Your task to perform on an android device: remove spam from my inbox in the gmail app Image 0: 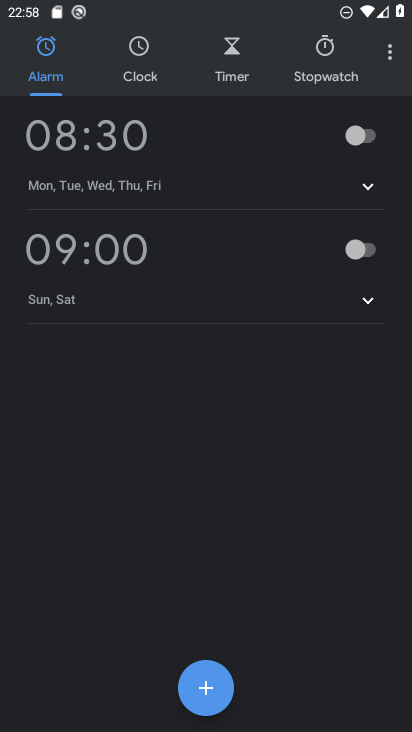
Step 0: press home button
Your task to perform on an android device: remove spam from my inbox in the gmail app Image 1: 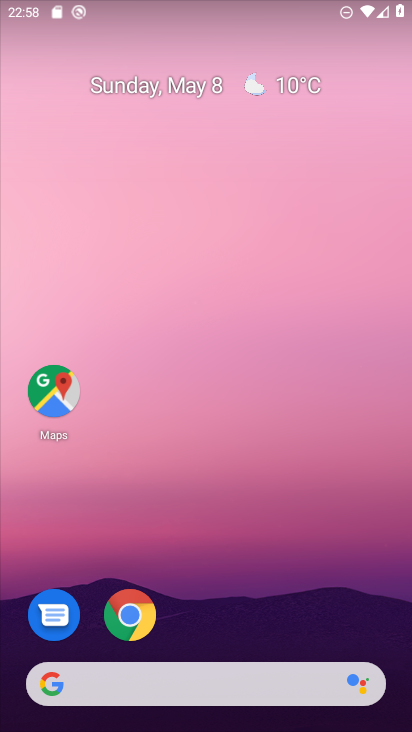
Step 1: drag from (298, 605) to (329, 190)
Your task to perform on an android device: remove spam from my inbox in the gmail app Image 2: 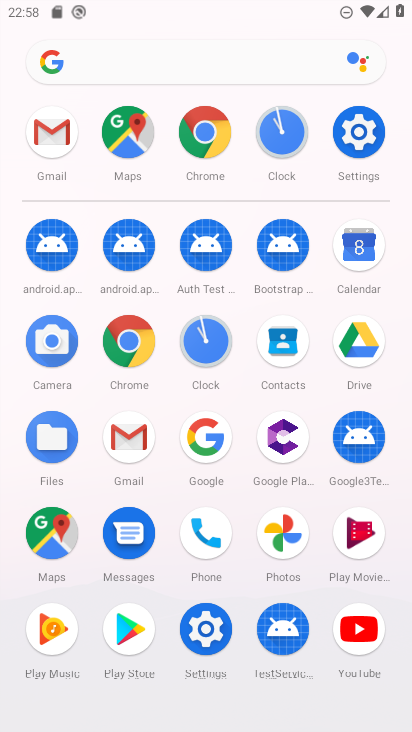
Step 2: click (132, 444)
Your task to perform on an android device: remove spam from my inbox in the gmail app Image 3: 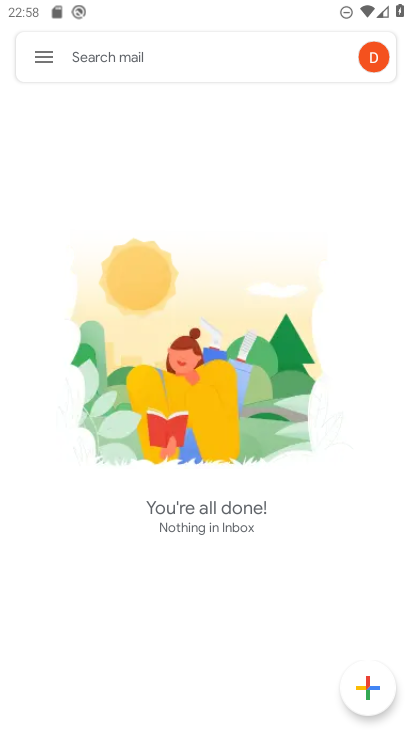
Step 3: click (40, 52)
Your task to perform on an android device: remove spam from my inbox in the gmail app Image 4: 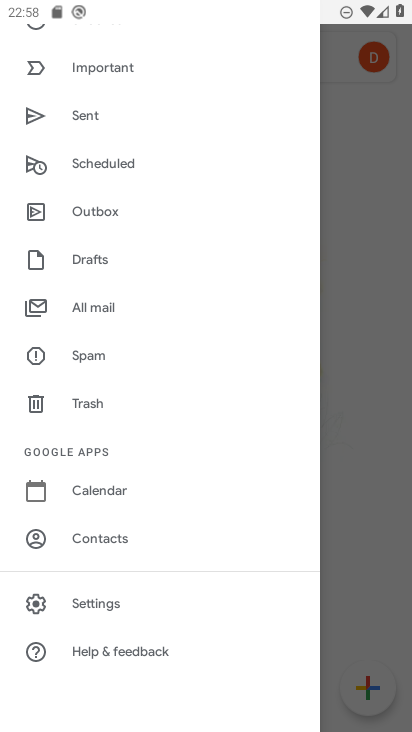
Step 4: click (97, 355)
Your task to perform on an android device: remove spam from my inbox in the gmail app Image 5: 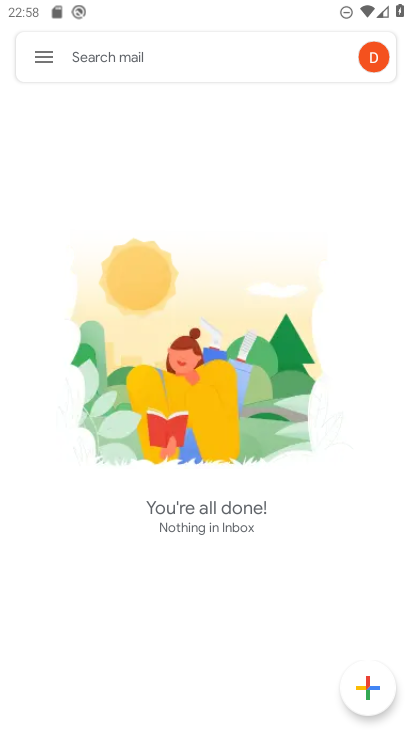
Step 5: task complete